Your task to perform on an android device: Open settings Image 0: 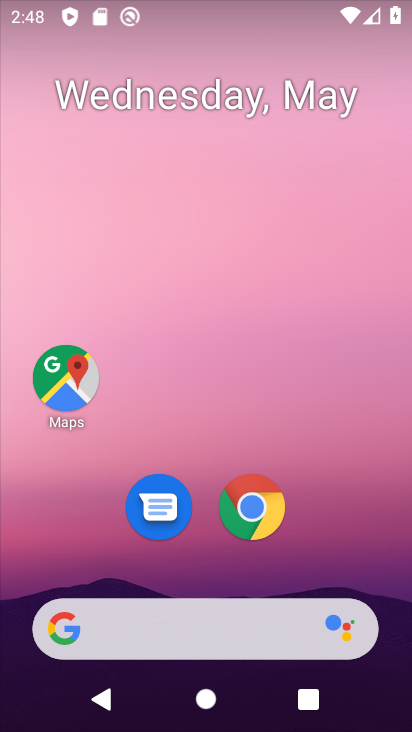
Step 0: drag from (328, 536) to (251, 19)
Your task to perform on an android device: Open settings Image 1: 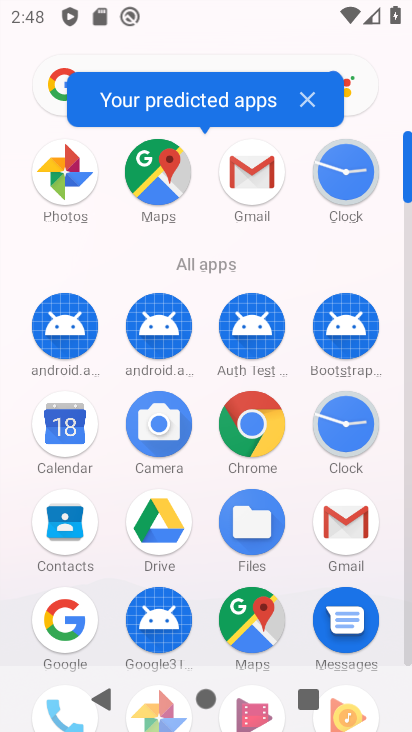
Step 1: drag from (117, 474) to (105, 215)
Your task to perform on an android device: Open settings Image 2: 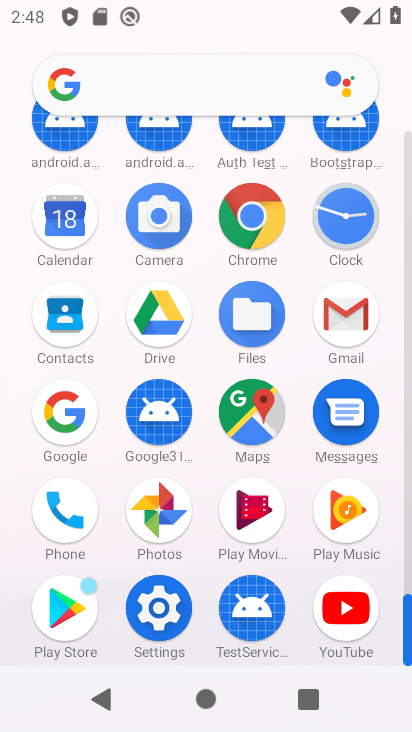
Step 2: click (160, 608)
Your task to perform on an android device: Open settings Image 3: 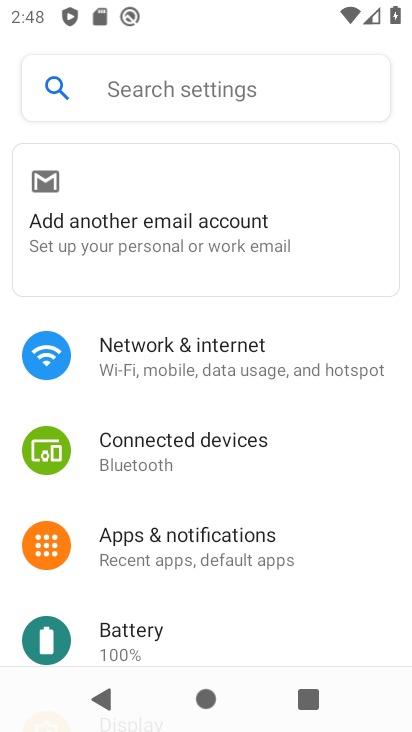
Step 3: task complete